Your task to perform on an android device: Open network settings Image 0: 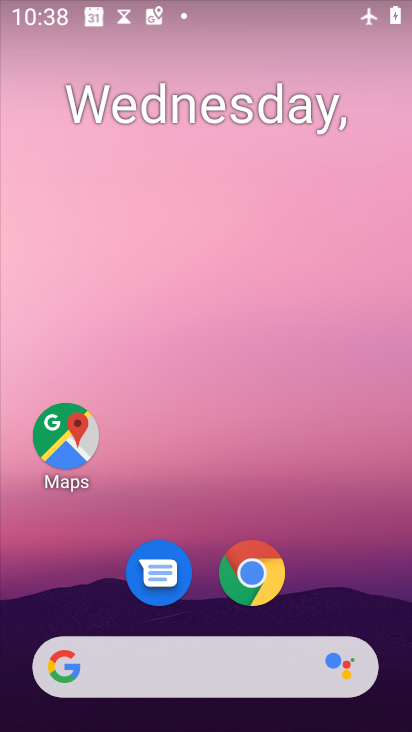
Step 0: drag from (312, 556) to (271, 224)
Your task to perform on an android device: Open network settings Image 1: 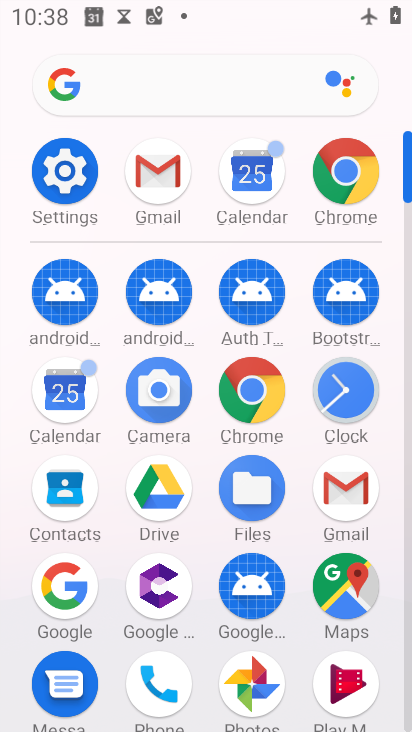
Step 1: click (69, 158)
Your task to perform on an android device: Open network settings Image 2: 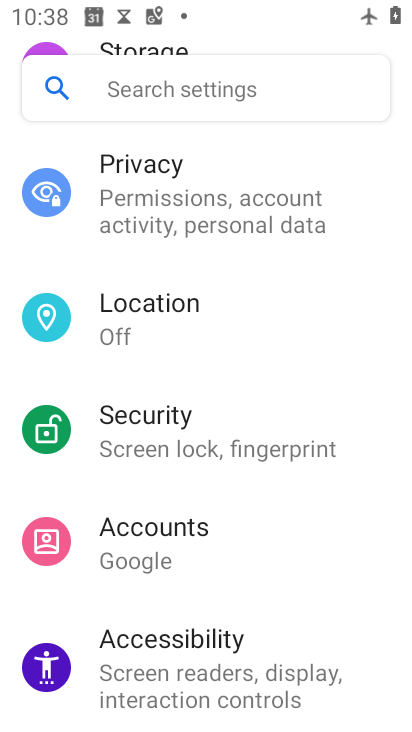
Step 2: drag from (221, 185) to (172, 572)
Your task to perform on an android device: Open network settings Image 3: 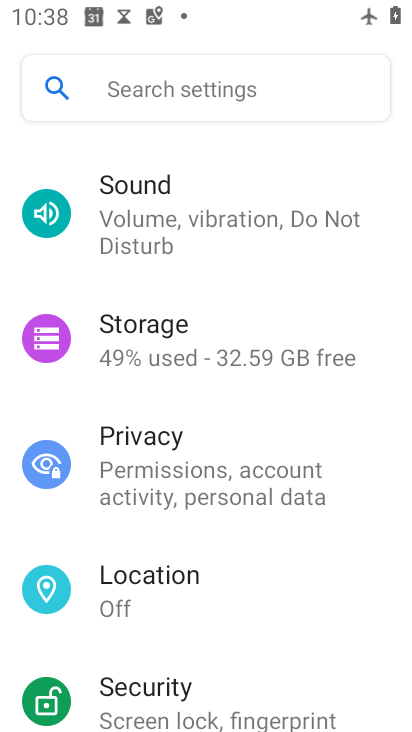
Step 3: drag from (188, 197) to (206, 622)
Your task to perform on an android device: Open network settings Image 4: 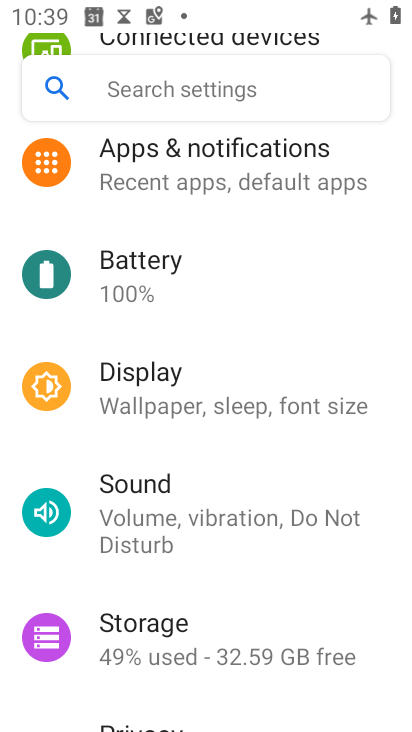
Step 4: drag from (213, 170) to (176, 587)
Your task to perform on an android device: Open network settings Image 5: 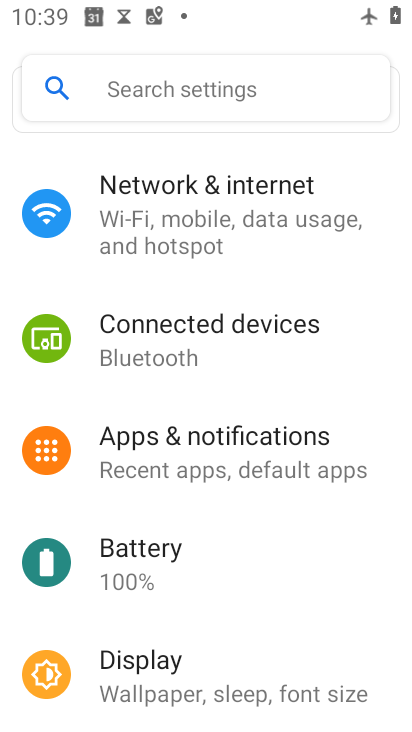
Step 5: click (208, 211)
Your task to perform on an android device: Open network settings Image 6: 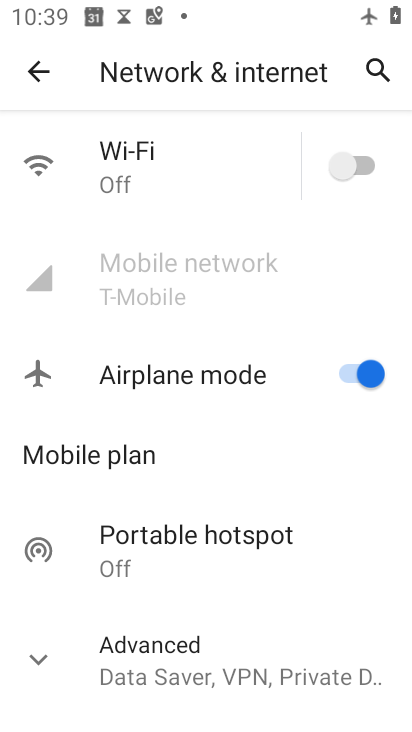
Step 6: task complete